Your task to perform on an android device: choose inbox layout in the gmail app Image 0: 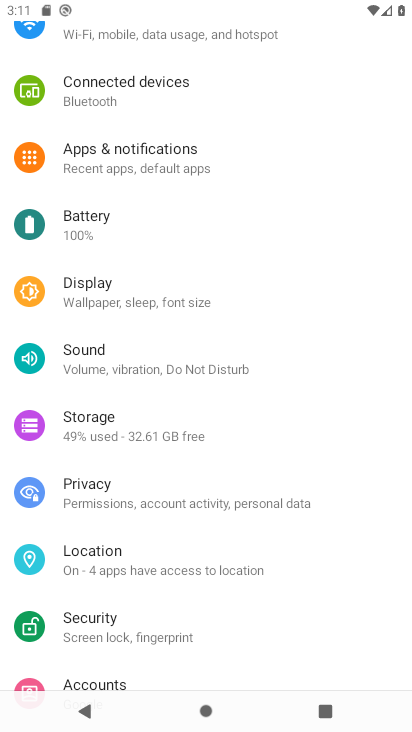
Step 0: press home button
Your task to perform on an android device: choose inbox layout in the gmail app Image 1: 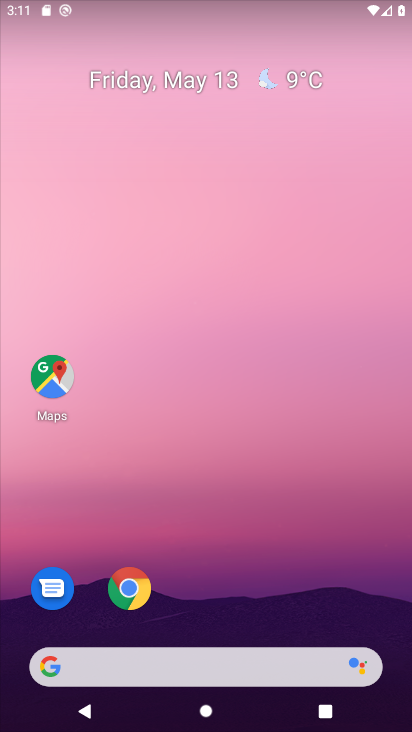
Step 1: drag from (353, 579) to (266, 40)
Your task to perform on an android device: choose inbox layout in the gmail app Image 2: 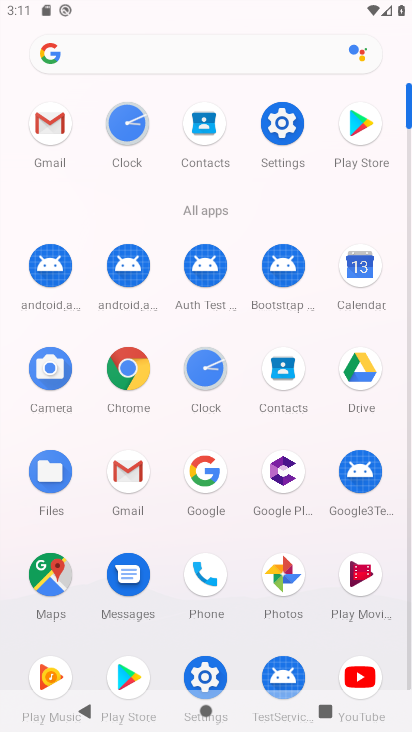
Step 2: click (127, 475)
Your task to perform on an android device: choose inbox layout in the gmail app Image 3: 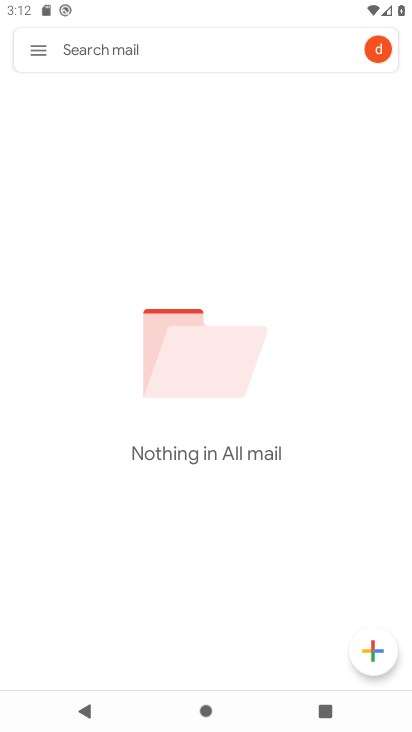
Step 3: click (25, 52)
Your task to perform on an android device: choose inbox layout in the gmail app Image 4: 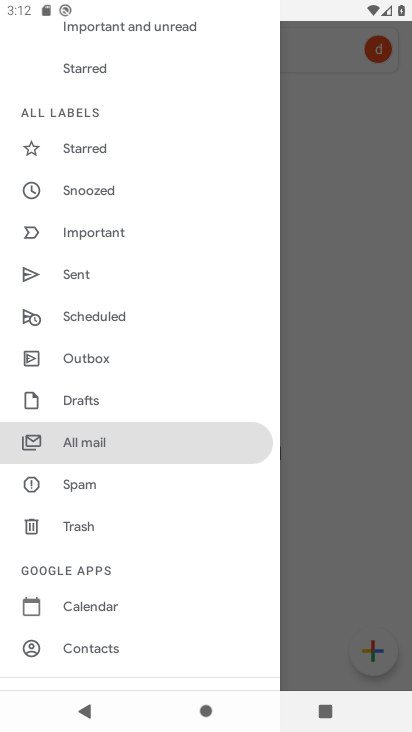
Step 4: drag from (212, 559) to (165, 336)
Your task to perform on an android device: choose inbox layout in the gmail app Image 5: 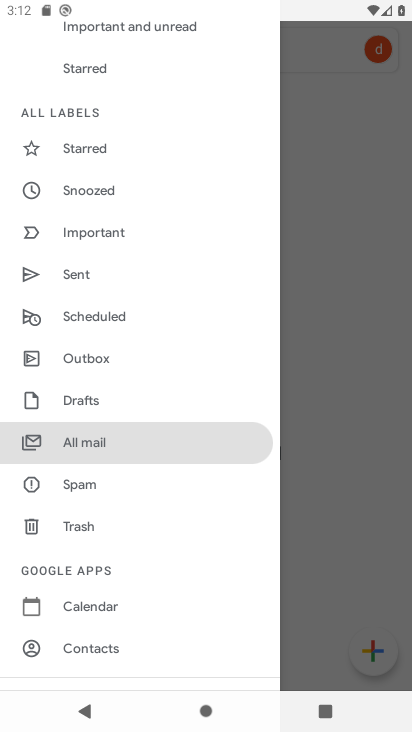
Step 5: drag from (184, 603) to (132, 301)
Your task to perform on an android device: choose inbox layout in the gmail app Image 6: 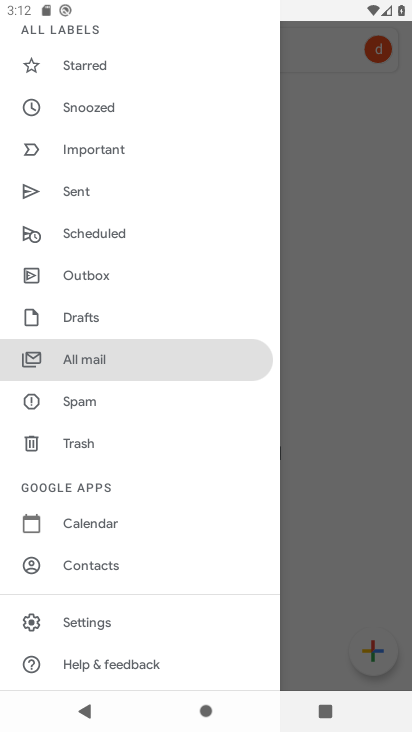
Step 6: click (110, 617)
Your task to perform on an android device: choose inbox layout in the gmail app Image 7: 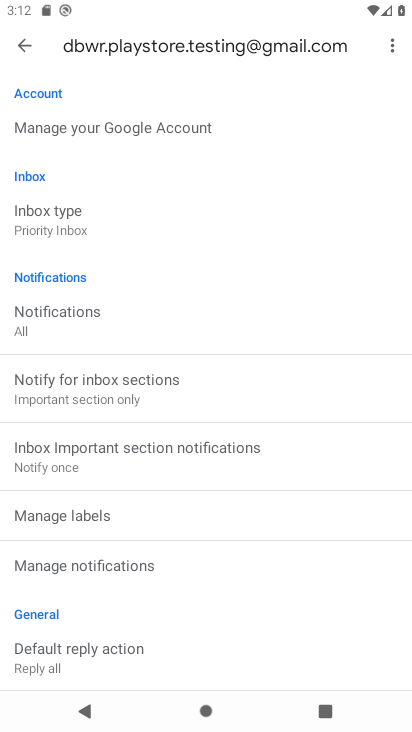
Step 7: click (78, 222)
Your task to perform on an android device: choose inbox layout in the gmail app Image 8: 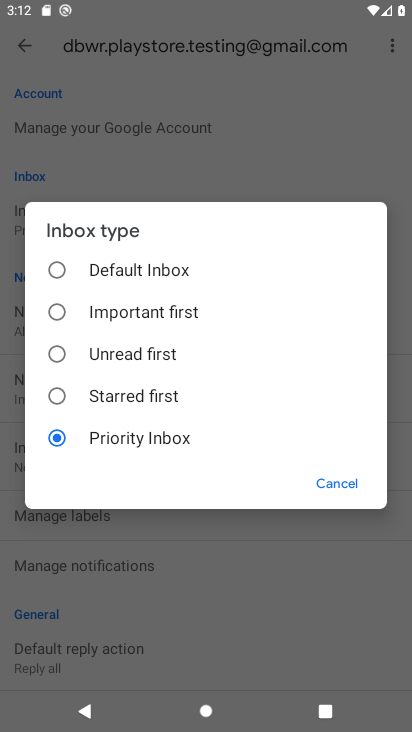
Step 8: click (59, 268)
Your task to perform on an android device: choose inbox layout in the gmail app Image 9: 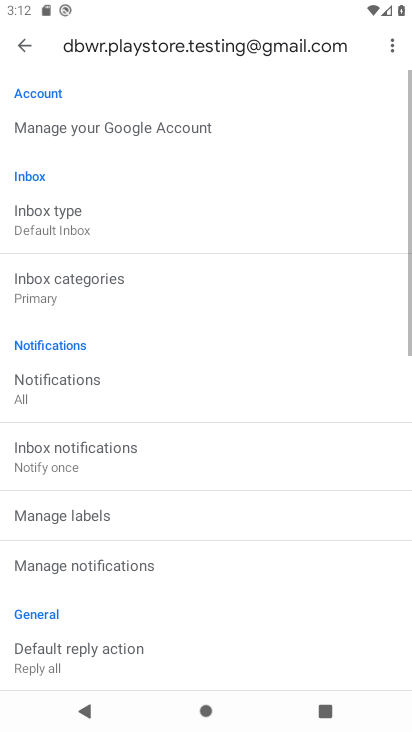
Step 9: click (92, 286)
Your task to perform on an android device: choose inbox layout in the gmail app Image 10: 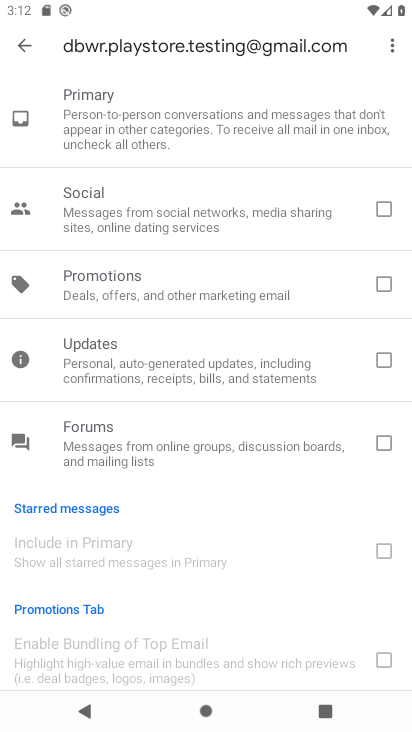
Step 10: click (383, 215)
Your task to perform on an android device: choose inbox layout in the gmail app Image 11: 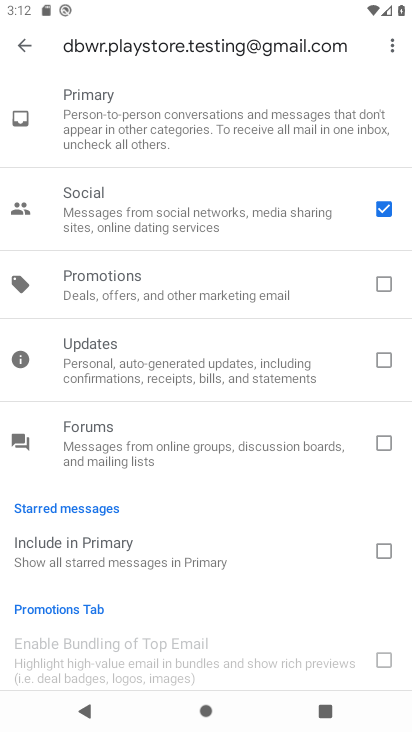
Step 11: task complete